Your task to perform on an android device: Go to eBay Image 0: 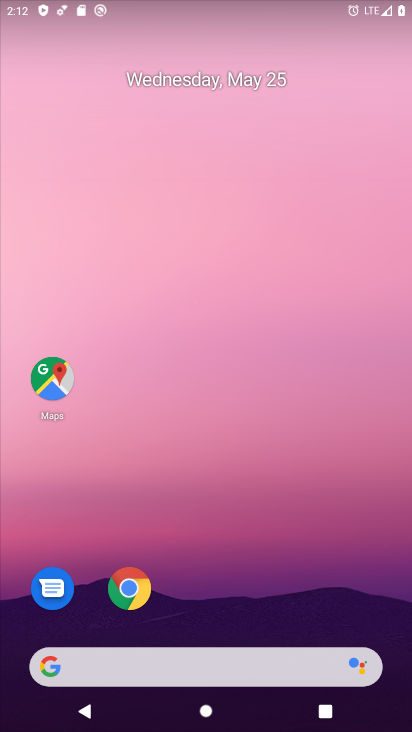
Step 0: drag from (231, 537) to (230, 125)
Your task to perform on an android device: Go to eBay Image 1: 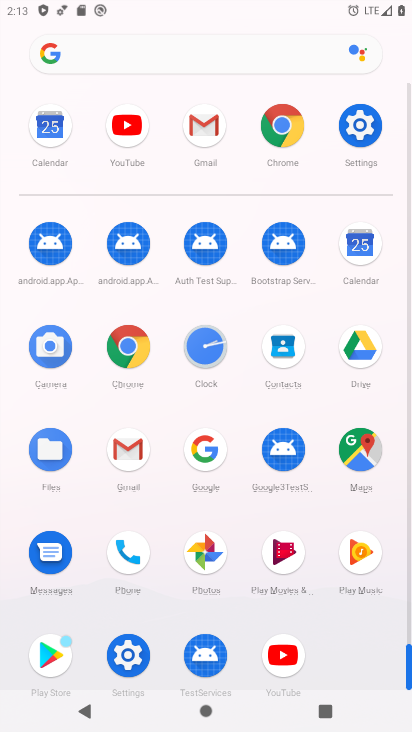
Step 1: drag from (17, 509) to (17, 192)
Your task to perform on an android device: Go to eBay Image 2: 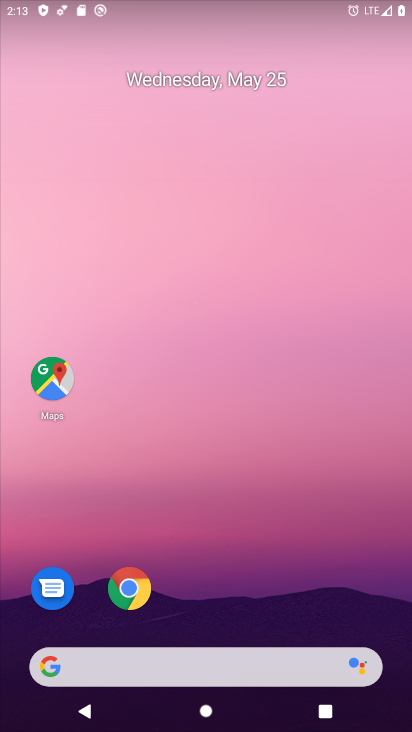
Step 2: drag from (295, 605) to (247, 14)
Your task to perform on an android device: Go to eBay Image 3: 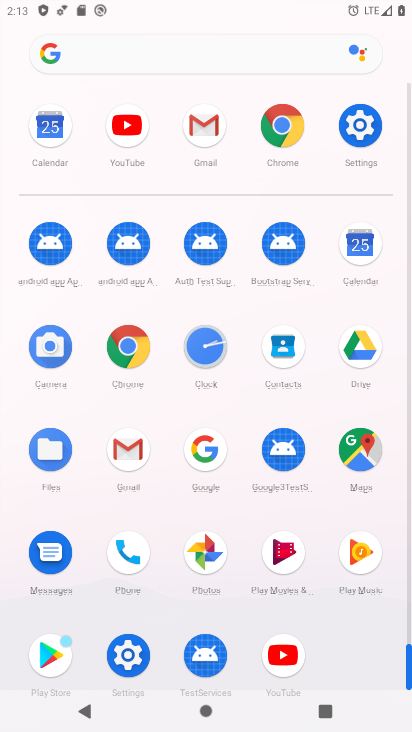
Step 3: click (130, 339)
Your task to perform on an android device: Go to eBay Image 4: 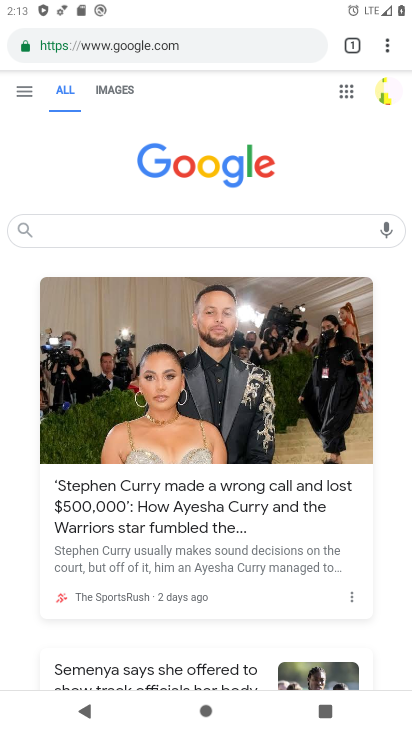
Step 4: click (182, 39)
Your task to perform on an android device: Go to eBay Image 5: 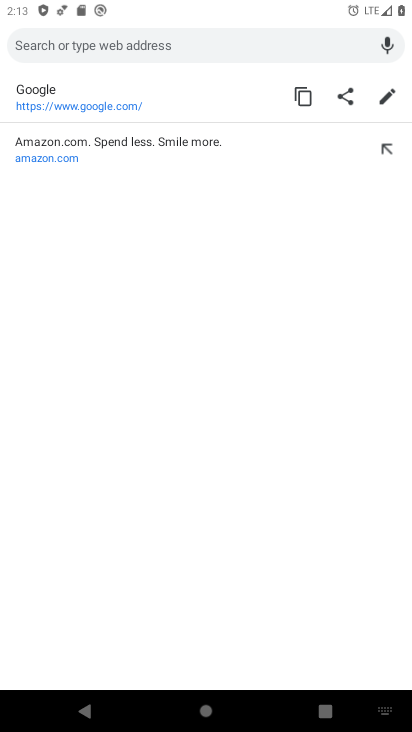
Step 5: type "eBay"
Your task to perform on an android device: Go to eBay Image 6: 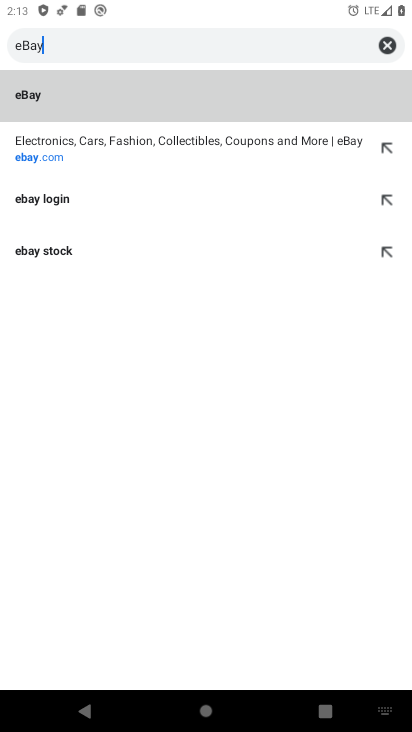
Step 6: type ""
Your task to perform on an android device: Go to eBay Image 7: 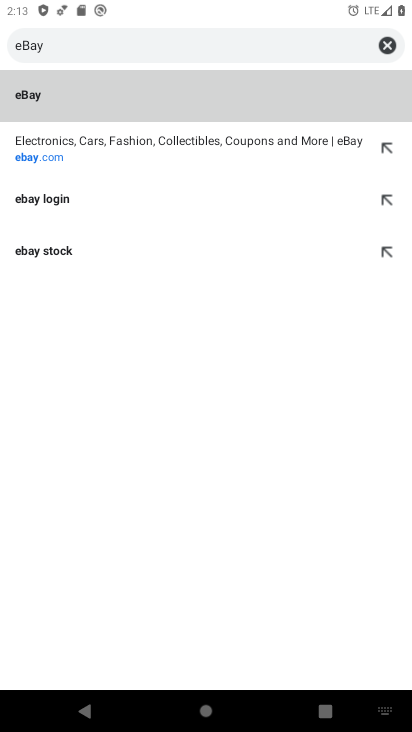
Step 7: click (56, 134)
Your task to perform on an android device: Go to eBay Image 8: 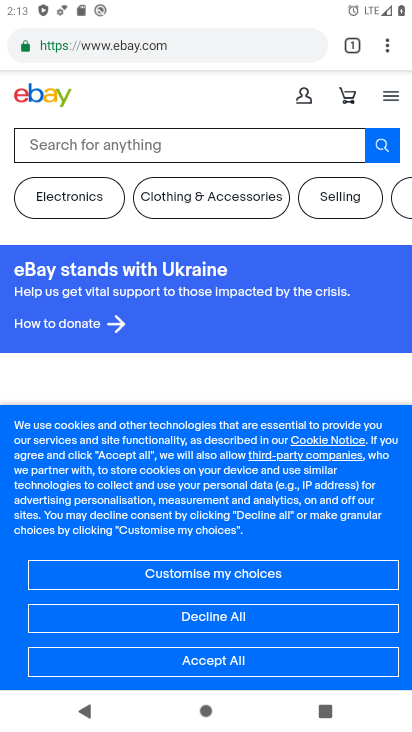
Step 8: task complete